Your task to perform on an android device: Open Google Image 0: 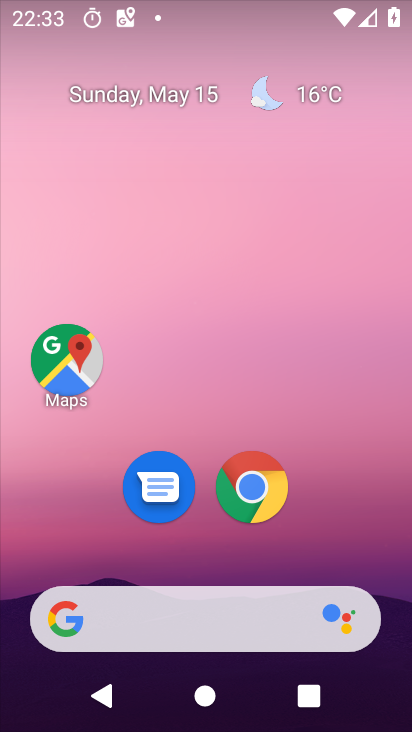
Step 0: drag from (392, 641) to (185, 181)
Your task to perform on an android device: Open Google Image 1: 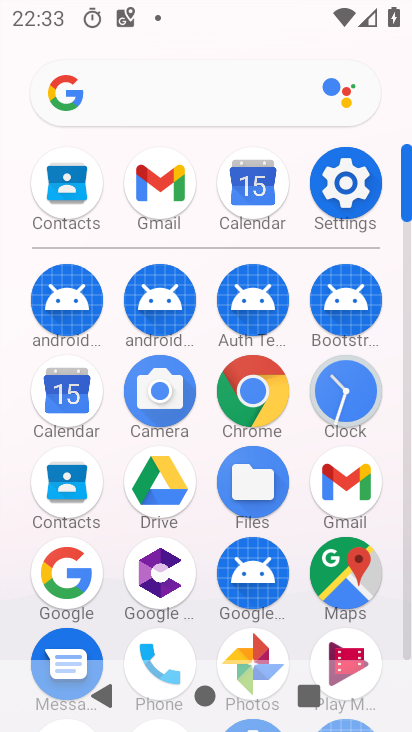
Step 1: click (77, 567)
Your task to perform on an android device: Open Google Image 2: 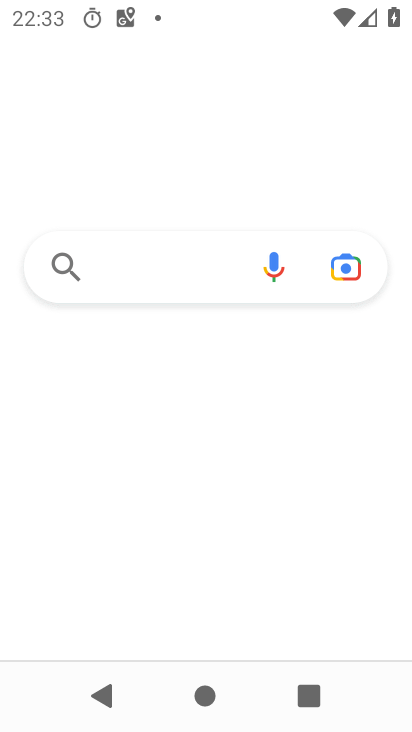
Step 2: click (77, 569)
Your task to perform on an android device: Open Google Image 3: 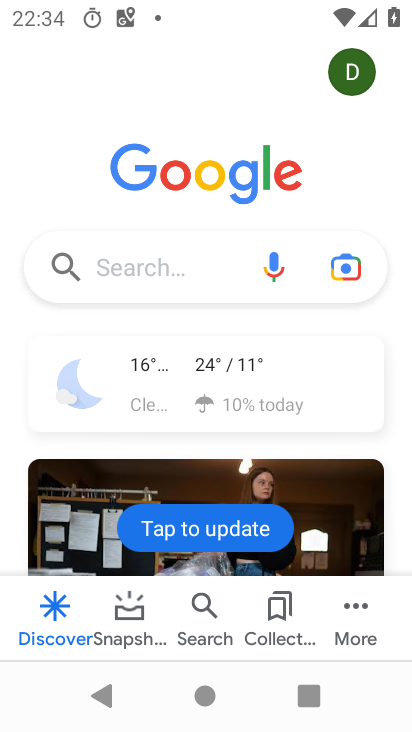
Step 3: task complete